Your task to perform on an android device: delete location history Image 0: 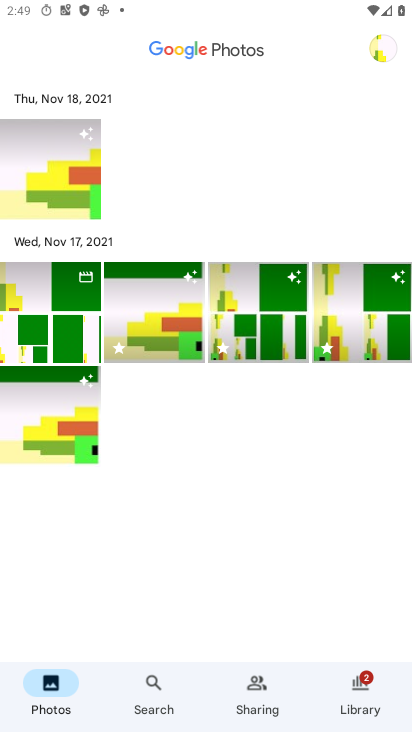
Step 0: press home button
Your task to perform on an android device: delete location history Image 1: 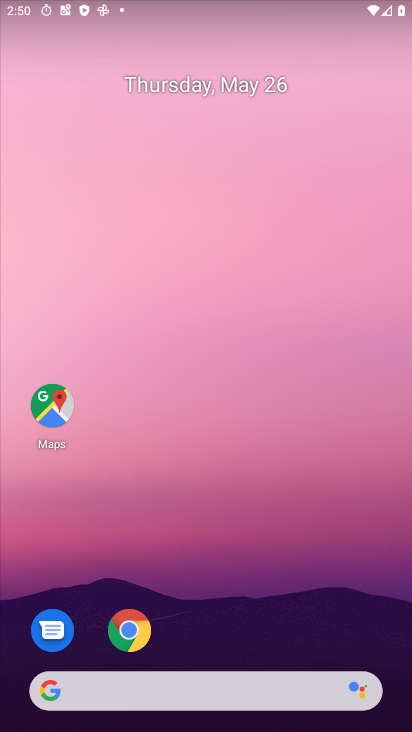
Step 1: drag from (249, 448) to (240, 219)
Your task to perform on an android device: delete location history Image 2: 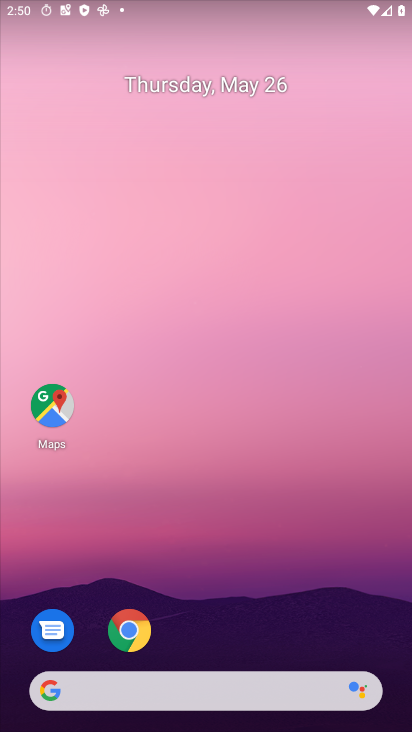
Step 2: drag from (296, 607) to (267, 191)
Your task to perform on an android device: delete location history Image 3: 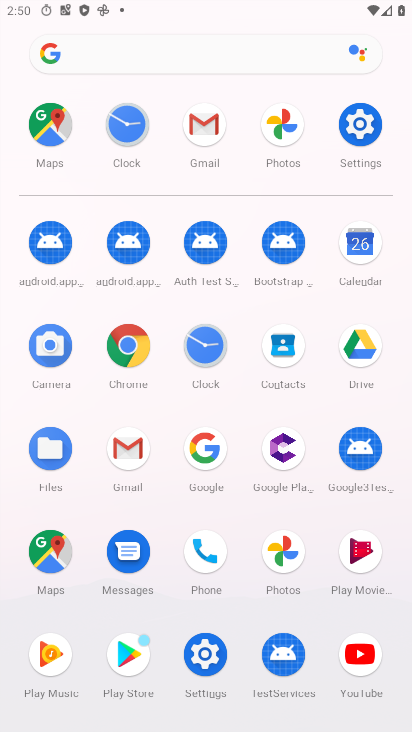
Step 3: click (372, 122)
Your task to perform on an android device: delete location history Image 4: 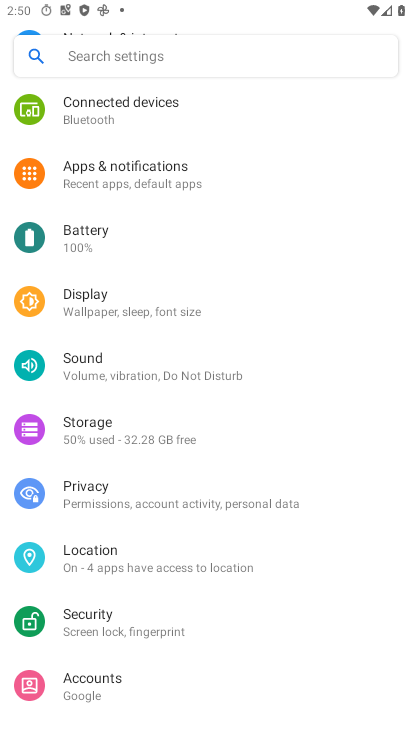
Step 4: click (150, 569)
Your task to perform on an android device: delete location history Image 5: 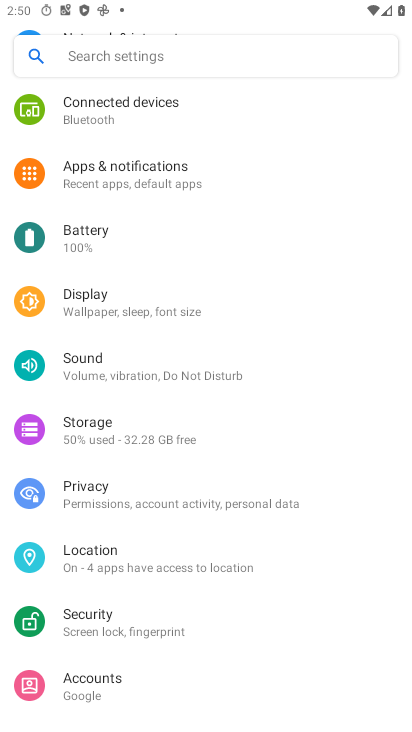
Step 5: click (195, 569)
Your task to perform on an android device: delete location history Image 6: 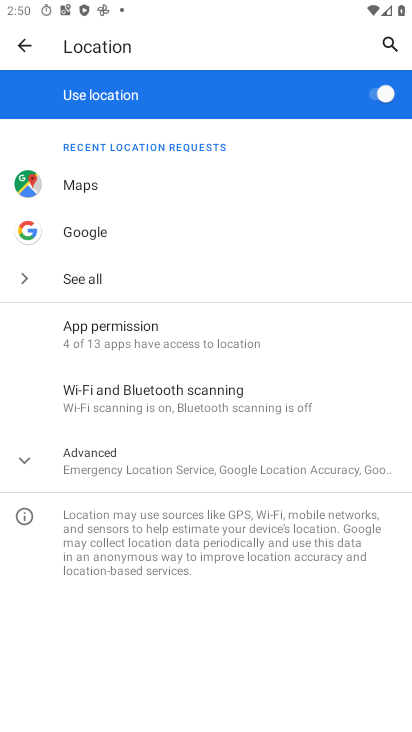
Step 6: click (76, 457)
Your task to perform on an android device: delete location history Image 7: 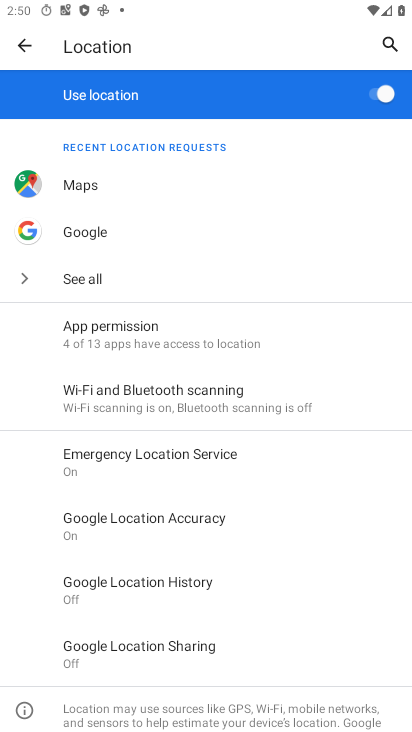
Step 7: click (169, 593)
Your task to perform on an android device: delete location history Image 8: 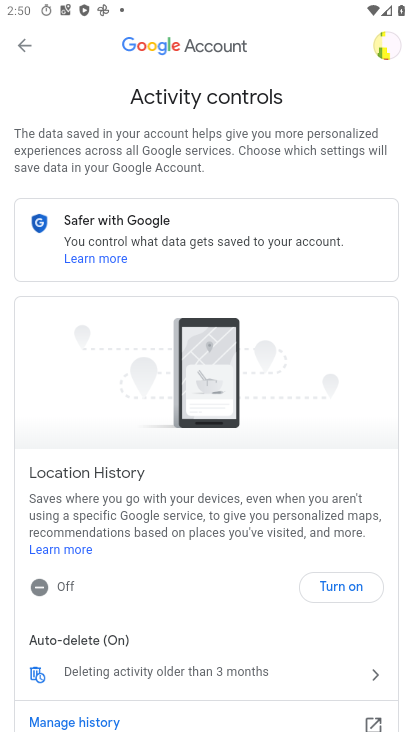
Step 8: drag from (226, 625) to (158, 262)
Your task to perform on an android device: delete location history Image 9: 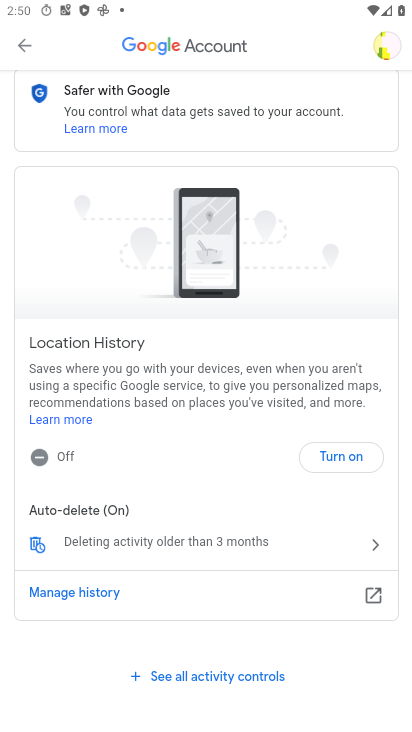
Step 9: click (59, 552)
Your task to perform on an android device: delete location history Image 10: 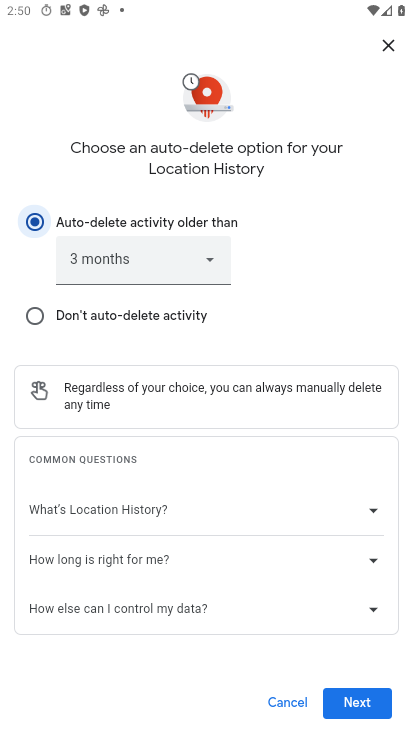
Step 10: click (359, 711)
Your task to perform on an android device: delete location history Image 11: 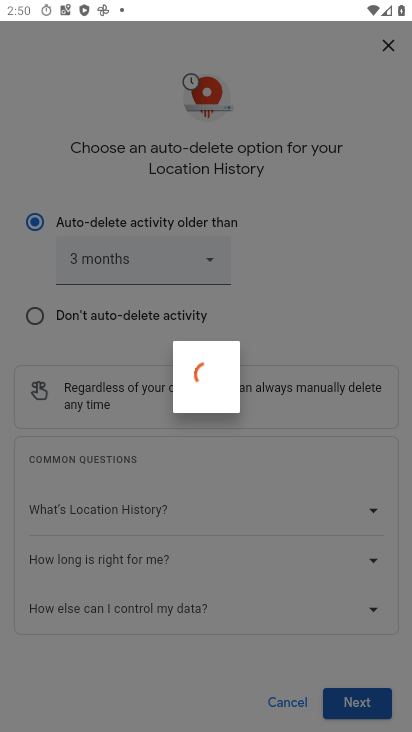
Step 11: click (360, 707)
Your task to perform on an android device: delete location history Image 12: 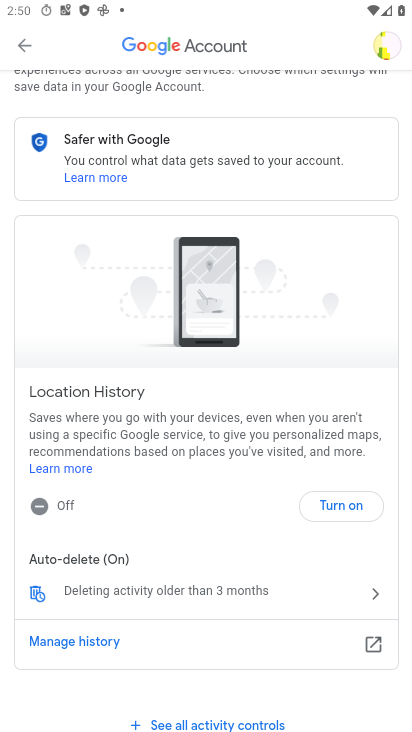
Step 12: task complete